Your task to perform on an android device: open a new tab in the chrome app Image 0: 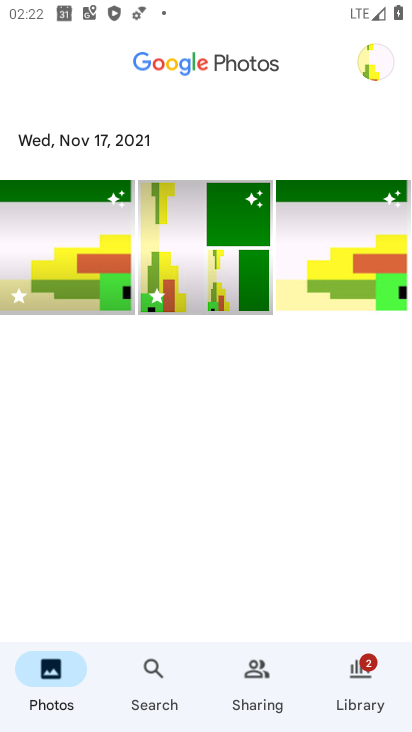
Step 0: press home button
Your task to perform on an android device: open a new tab in the chrome app Image 1: 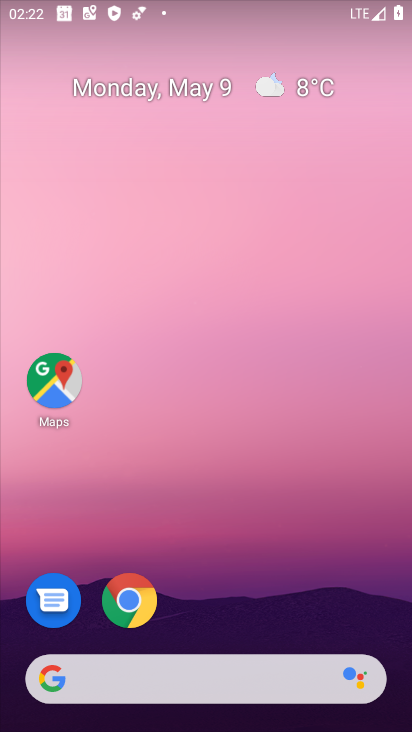
Step 1: click (126, 593)
Your task to perform on an android device: open a new tab in the chrome app Image 2: 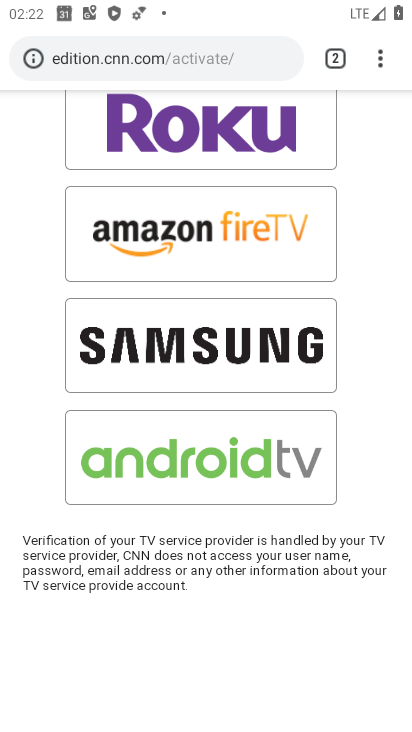
Step 2: click (332, 52)
Your task to perform on an android device: open a new tab in the chrome app Image 3: 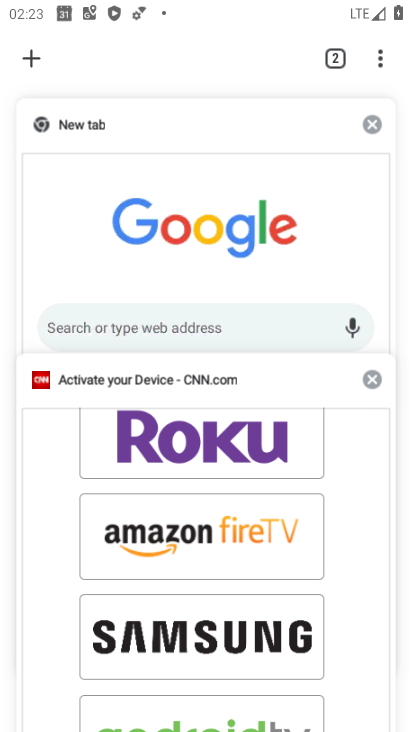
Step 3: click (32, 61)
Your task to perform on an android device: open a new tab in the chrome app Image 4: 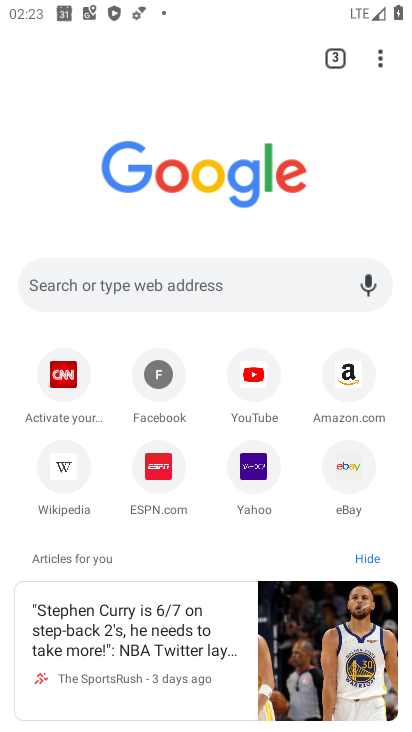
Step 4: task complete